Your task to perform on an android device: toggle airplane mode Image 0: 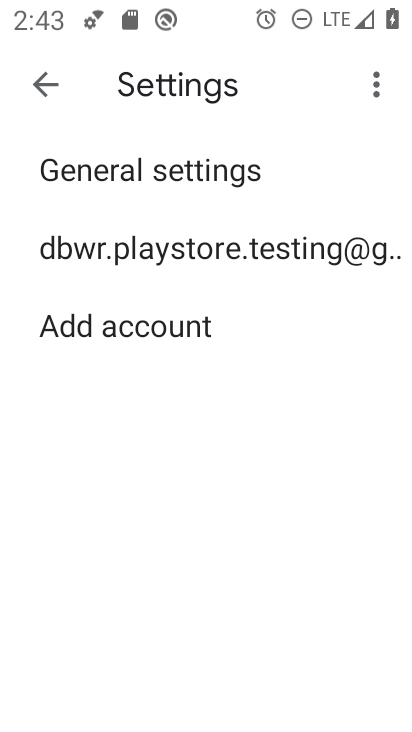
Step 0: click (60, 90)
Your task to perform on an android device: toggle airplane mode Image 1: 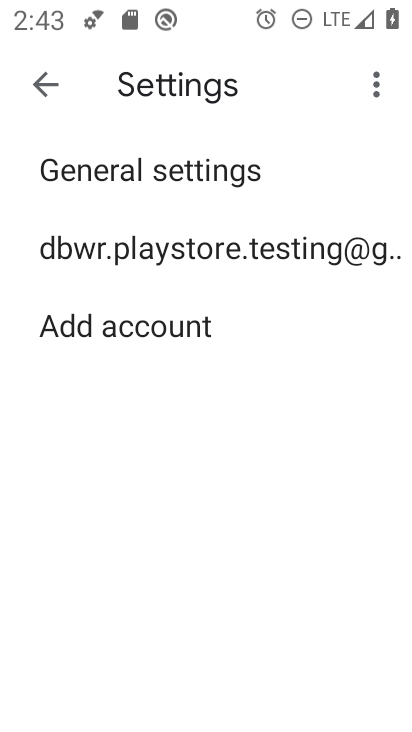
Step 1: click (61, 73)
Your task to perform on an android device: toggle airplane mode Image 2: 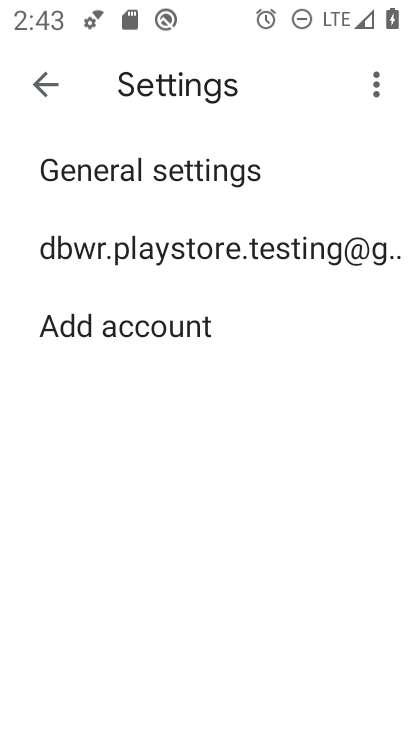
Step 2: press back button
Your task to perform on an android device: toggle airplane mode Image 3: 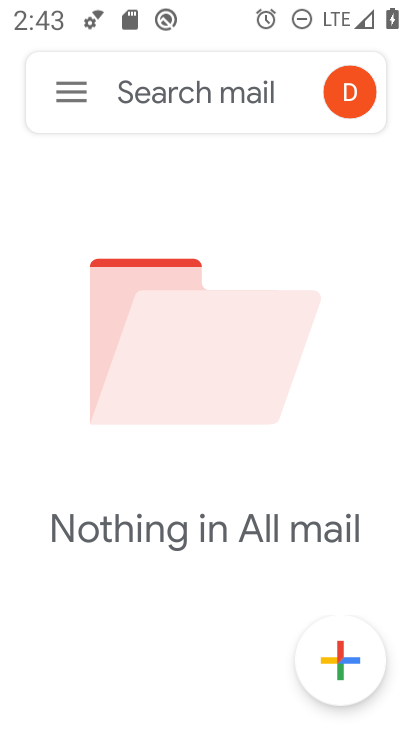
Step 3: press home button
Your task to perform on an android device: toggle airplane mode Image 4: 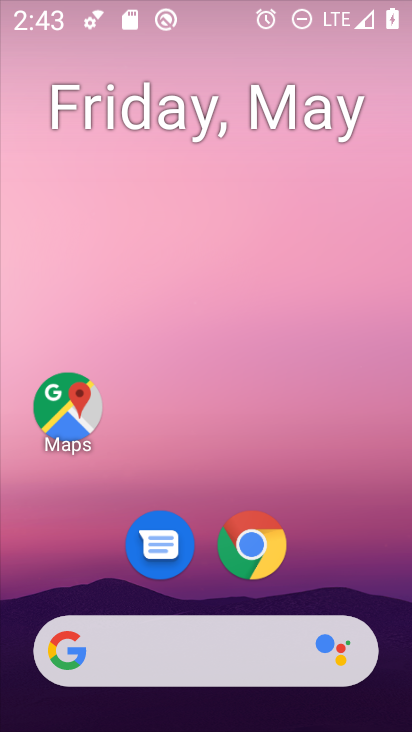
Step 4: drag from (304, 556) to (274, 259)
Your task to perform on an android device: toggle airplane mode Image 5: 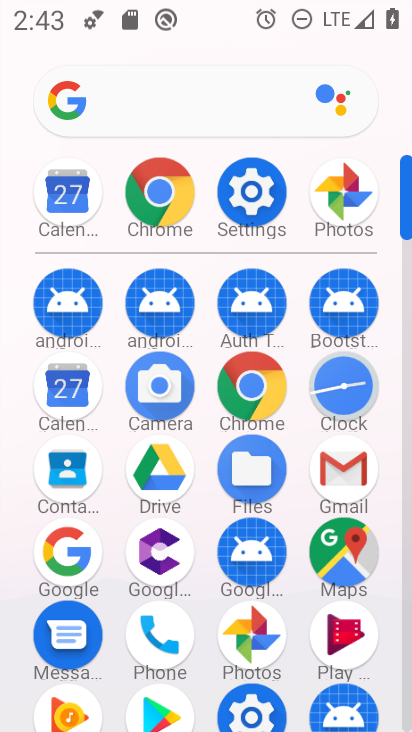
Step 5: click (234, 193)
Your task to perform on an android device: toggle airplane mode Image 6: 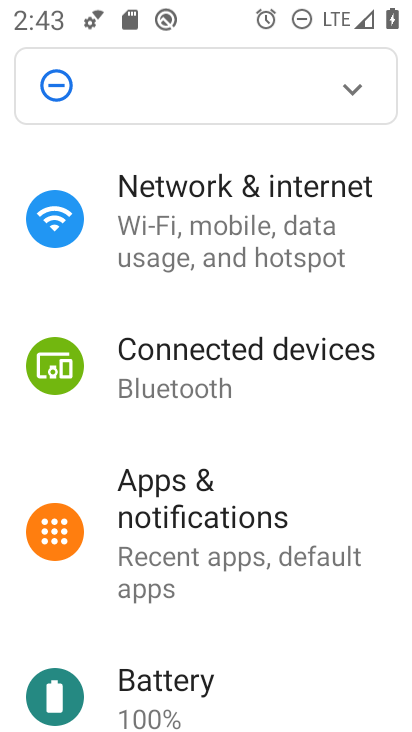
Step 6: click (187, 195)
Your task to perform on an android device: toggle airplane mode Image 7: 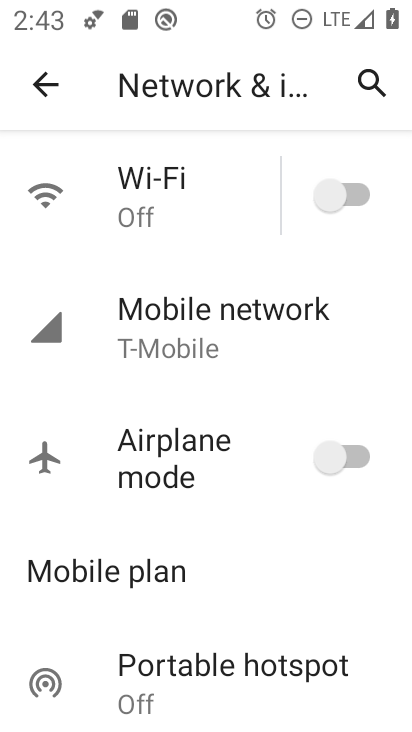
Step 7: click (321, 455)
Your task to perform on an android device: toggle airplane mode Image 8: 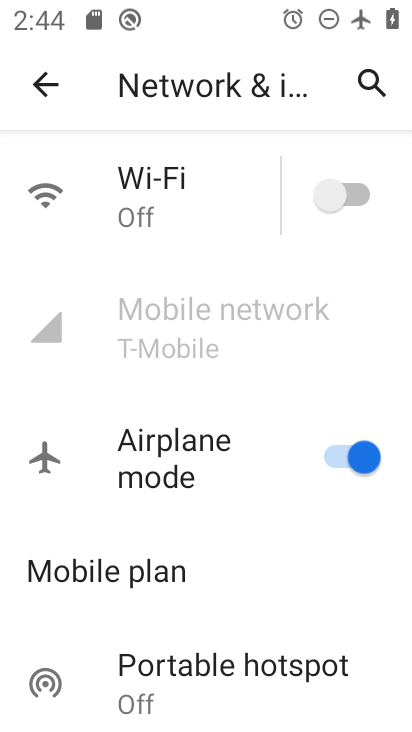
Step 8: task complete